Your task to perform on an android device: Go to display settings Image 0: 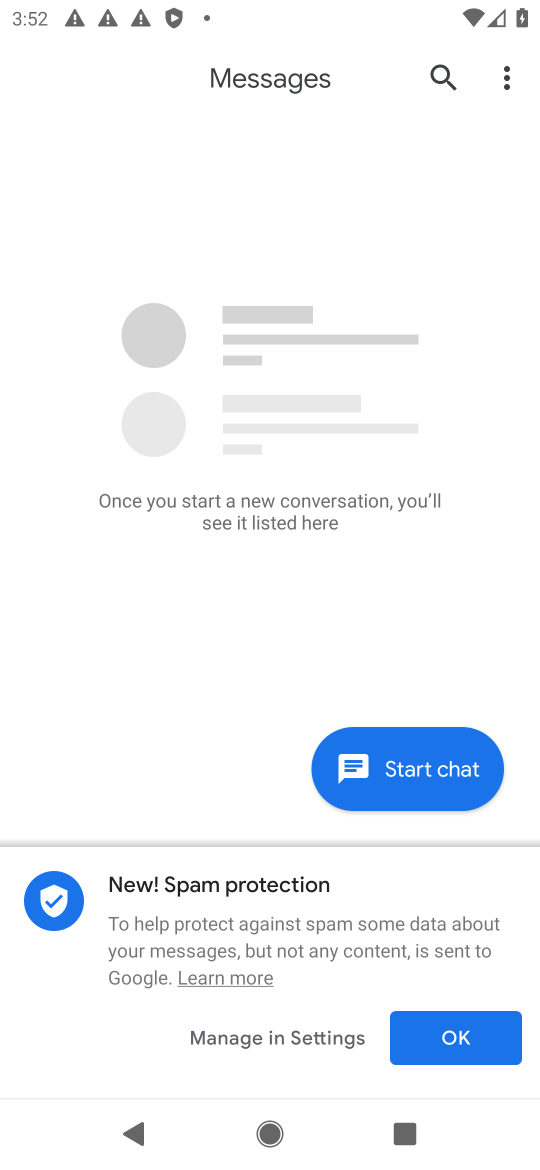
Step 0: press home button
Your task to perform on an android device: Go to display settings Image 1: 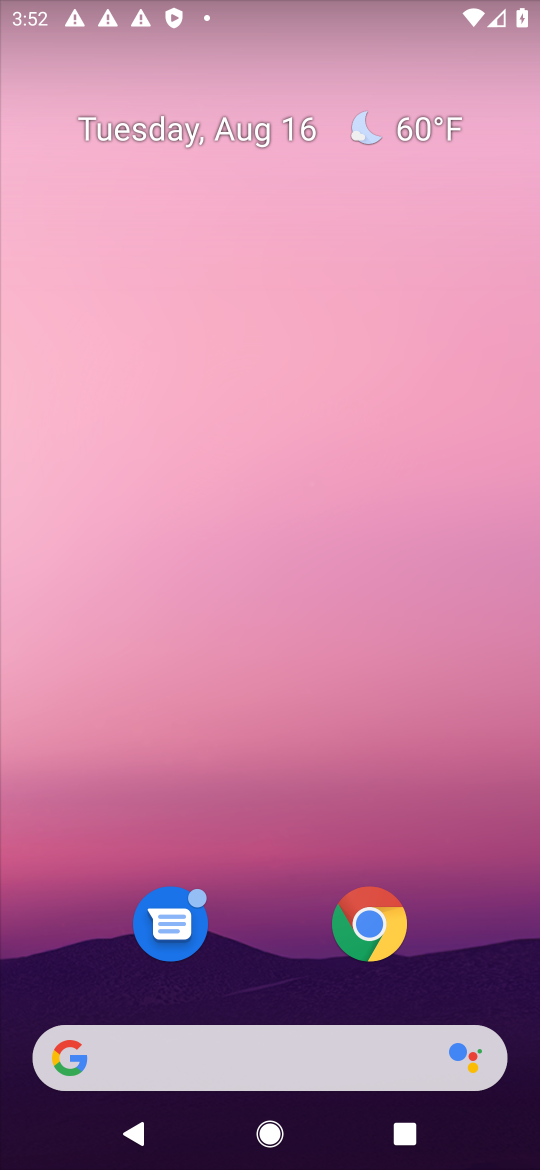
Step 1: click (295, 43)
Your task to perform on an android device: Go to display settings Image 2: 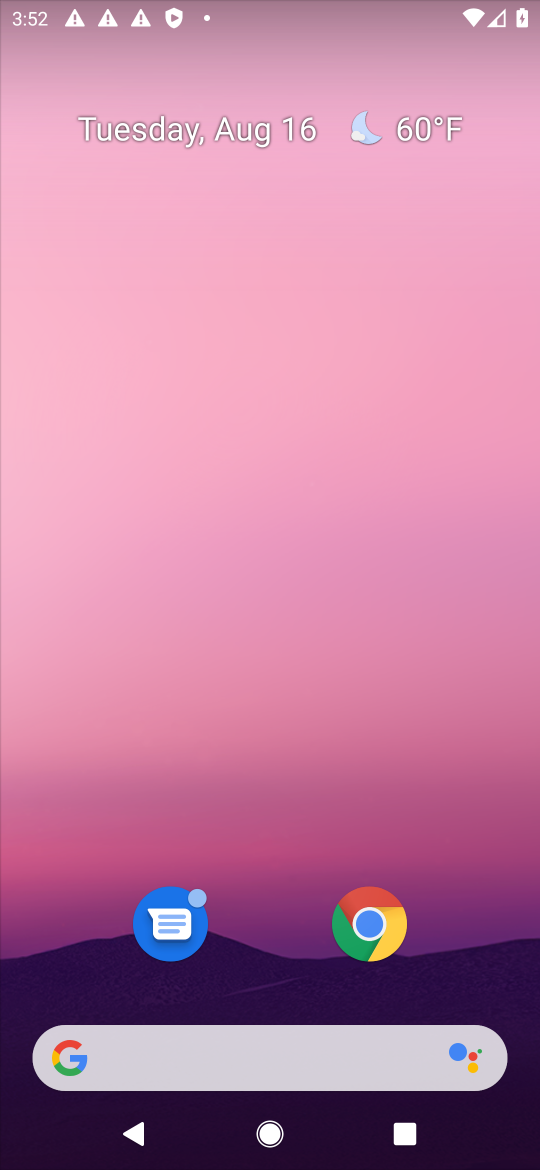
Step 2: drag from (249, 997) to (214, 168)
Your task to perform on an android device: Go to display settings Image 3: 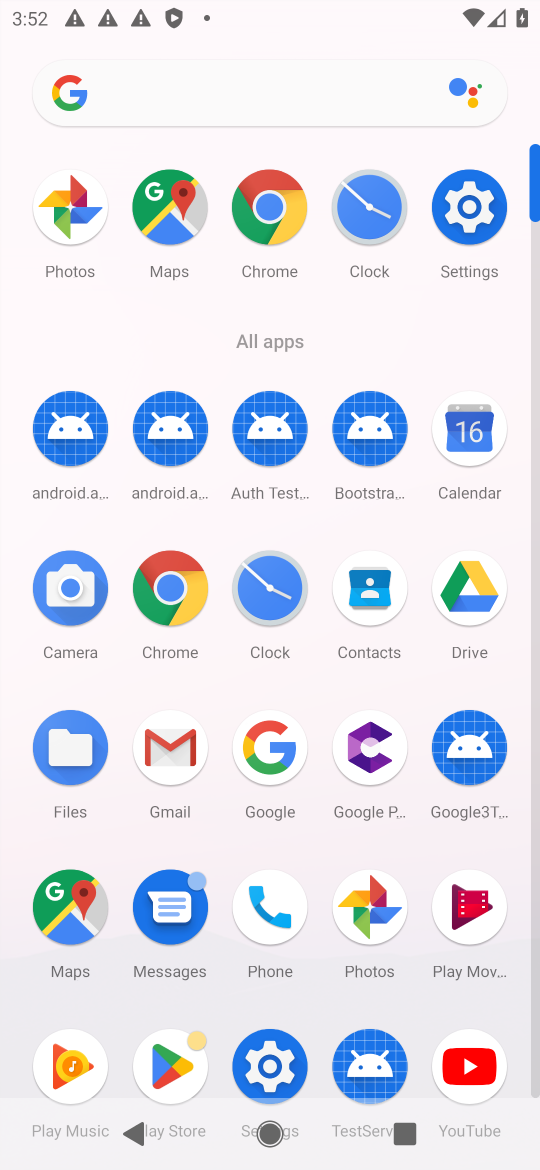
Step 3: click (464, 211)
Your task to perform on an android device: Go to display settings Image 4: 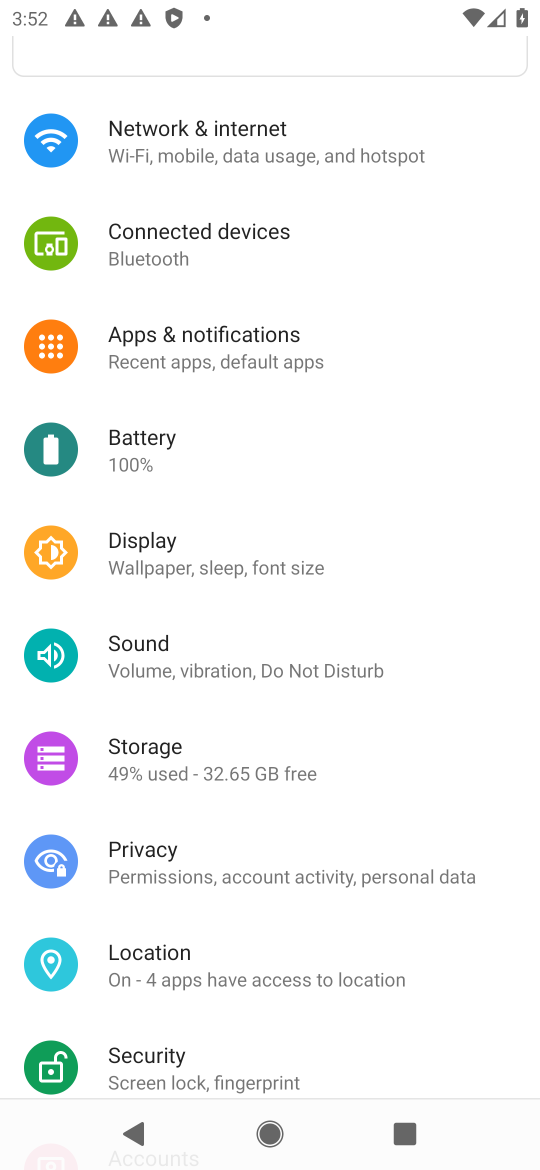
Step 4: click (162, 561)
Your task to perform on an android device: Go to display settings Image 5: 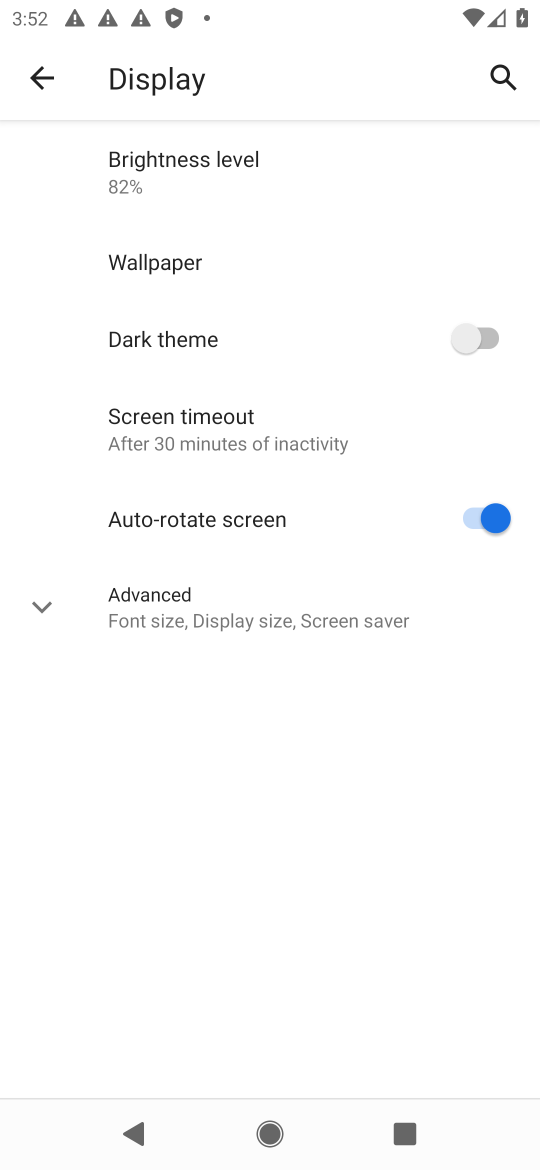
Step 5: task complete